Your task to perform on an android device: Add apple airpods to the cart on ebay.com Image 0: 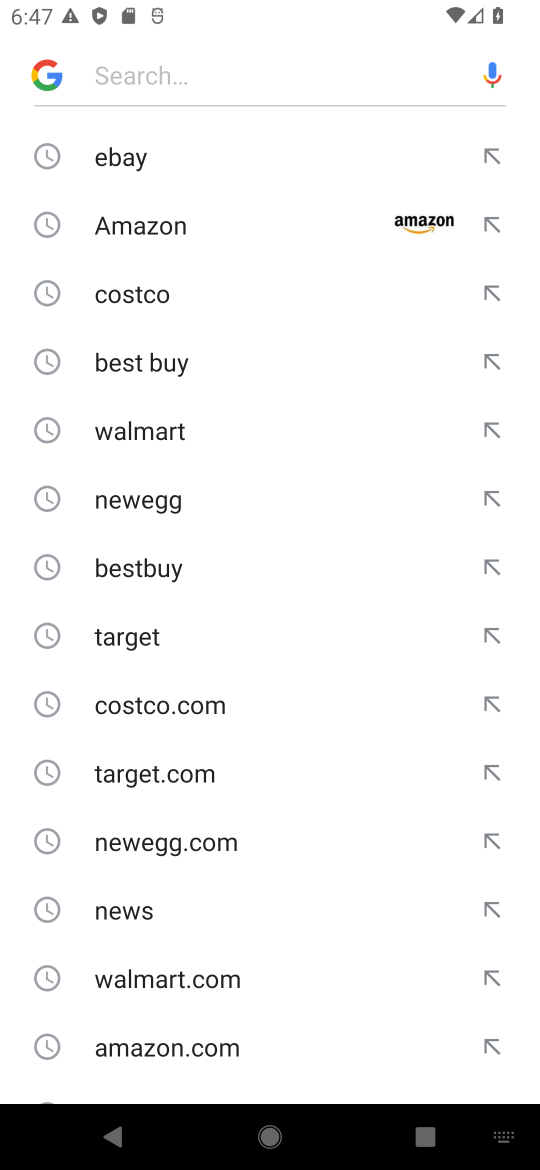
Step 0: press home button
Your task to perform on an android device: Add apple airpods to the cart on ebay.com Image 1: 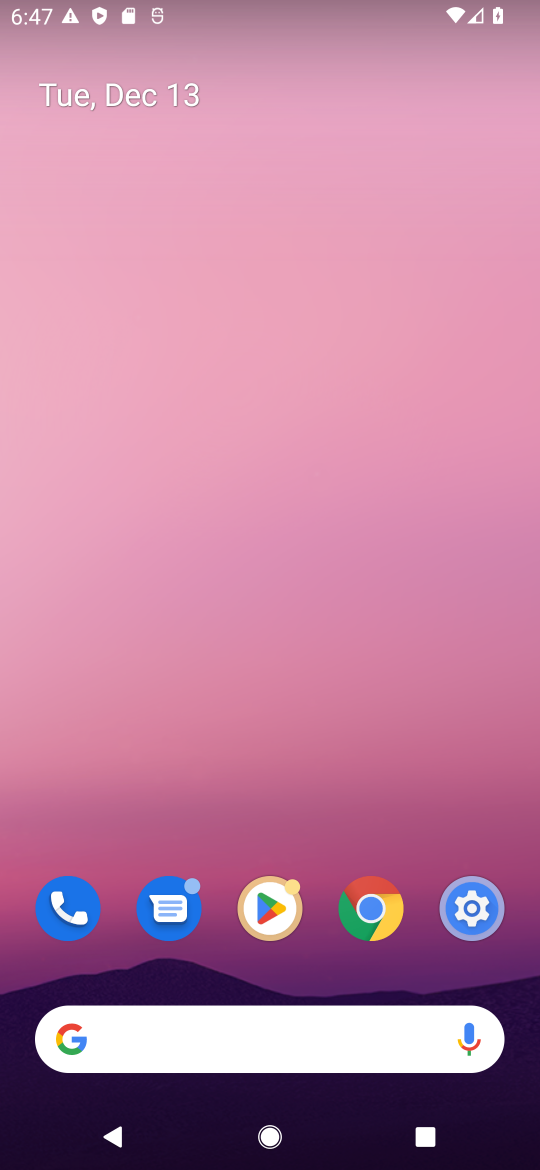
Step 1: click (112, 1037)
Your task to perform on an android device: Add apple airpods to the cart on ebay.com Image 2: 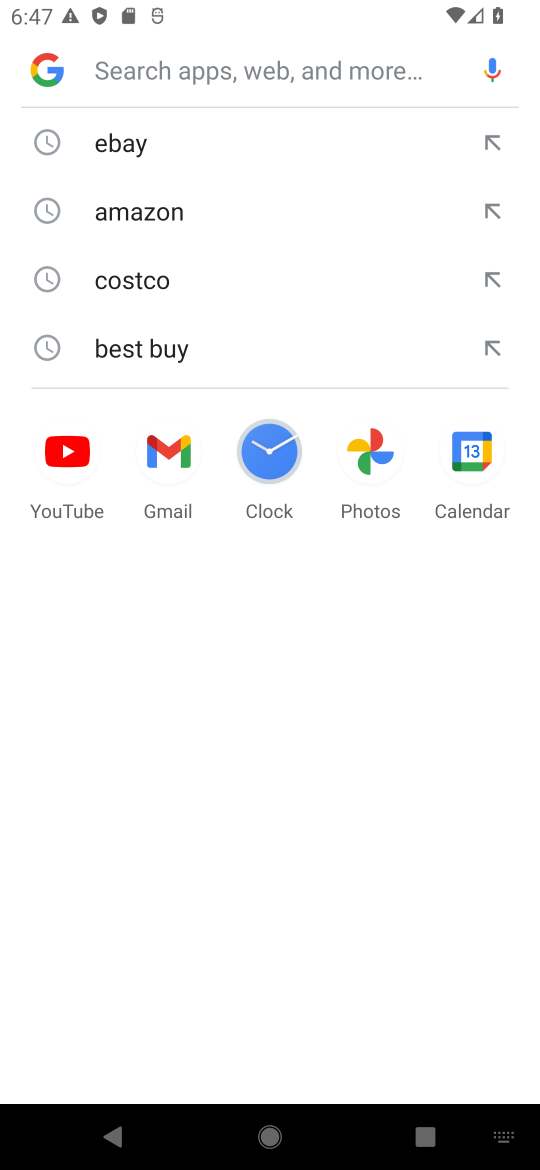
Step 2: type "apple airpods"
Your task to perform on an android device: Add apple airpods to the cart on ebay.com Image 3: 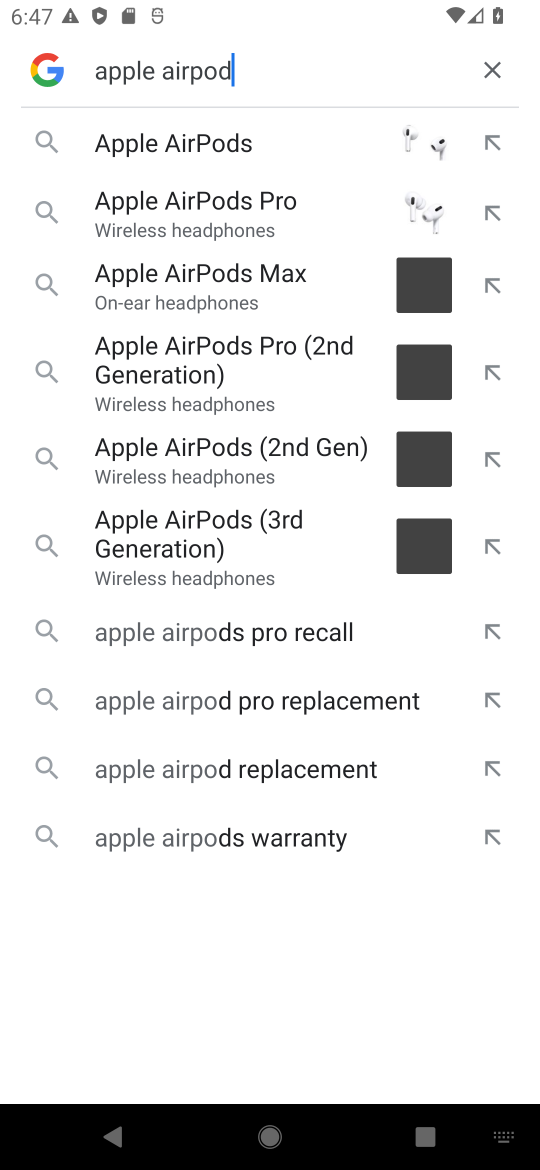
Step 3: press enter
Your task to perform on an android device: Add apple airpods to the cart on ebay.com Image 4: 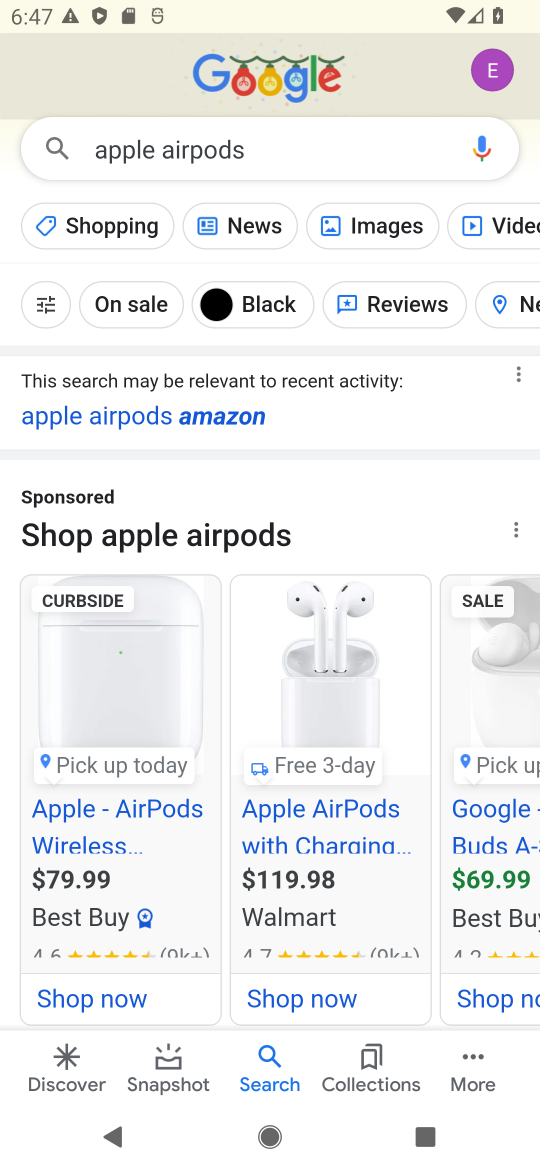
Step 4: drag from (294, 896) to (296, 454)
Your task to perform on an android device: Add apple airpods to the cart on ebay.com Image 5: 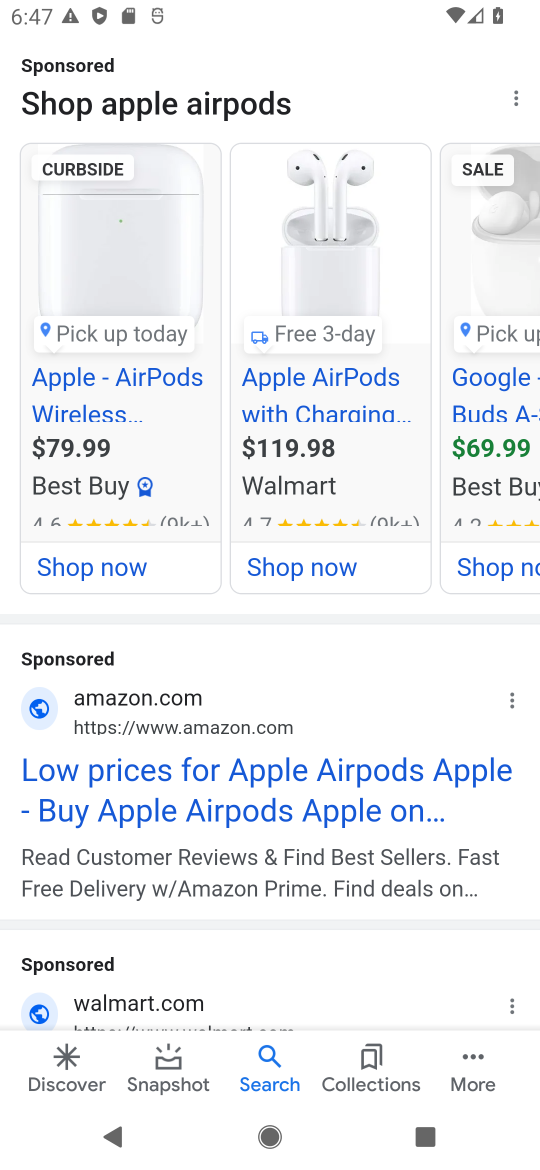
Step 5: click (198, 797)
Your task to perform on an android device: Add apple airpods to the cart on ebay.com Image 6: 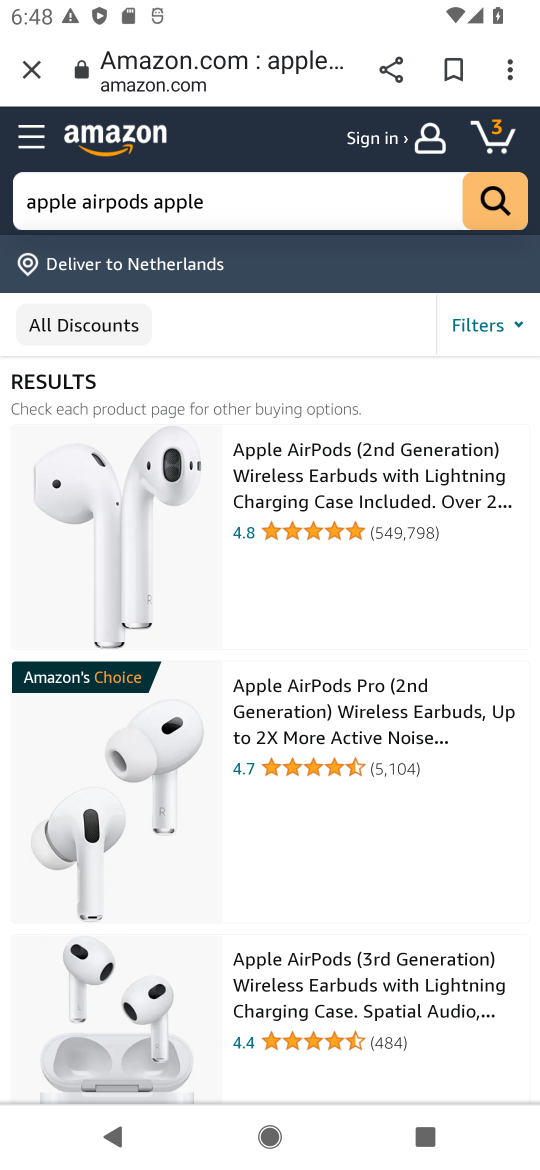
Step 6: click (292, 477)
Your task to perform on an android device: Add apple airpods to the cart on ebay.com Image 7: 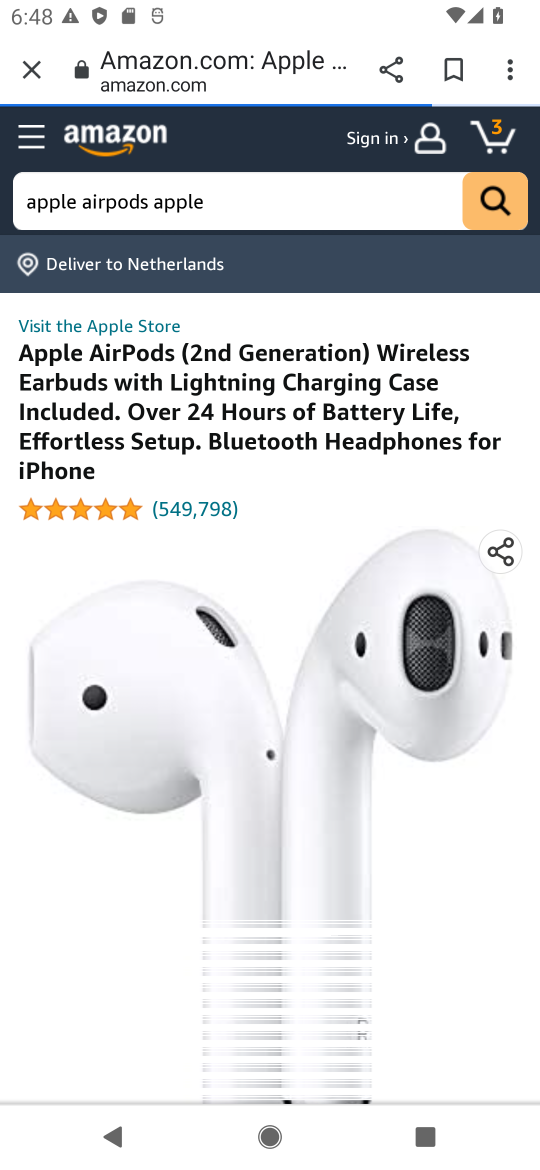
Step 7: task complete